Your task to perform on an android device: turn pop-ups on in chrome Image 0: 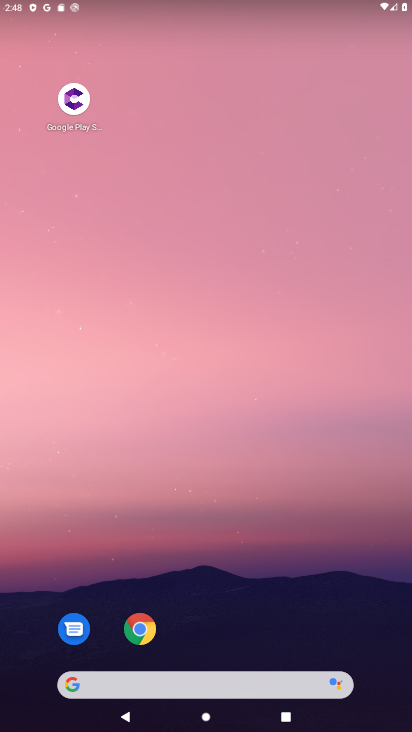
Step 0: drag from (317, 641) to (274, 141)
Your task to perform on an android device: turn pop-ups on in chrome Image 1: 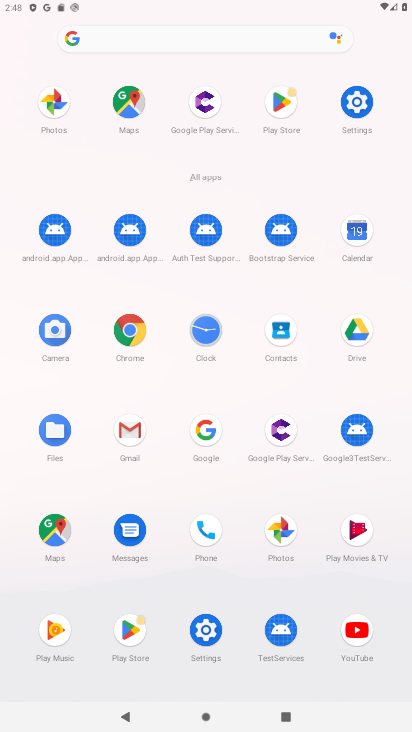
Step 1: click (134, 331)
Your task to perform on an android device: turn pop-ups on in chrome Image 2: 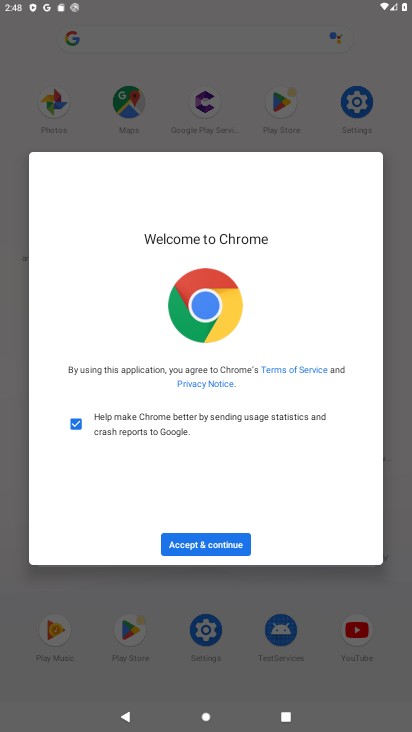
Step 2: click (222, 545)
Your task to perform on an android device: turn pop-ups on in chrome Image 3: 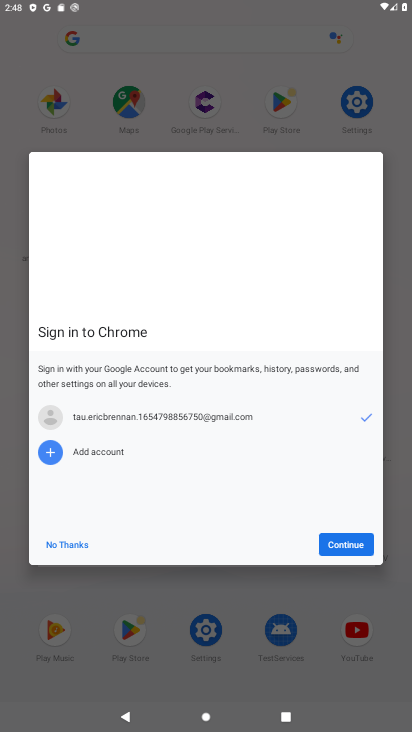
Step 3: click (327, 544)
Your task to perform on an android device: turn pop-ups on in chrome Image 4: 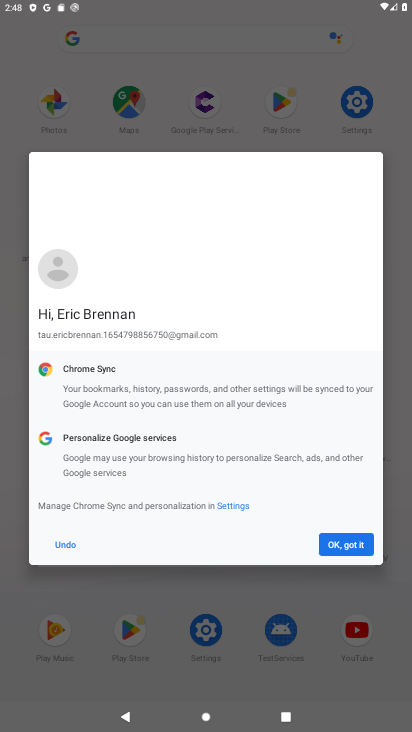
Step 4: click (327, 544)
Your task to perform on an android device: turn pop-ups on in chrome Image 5: 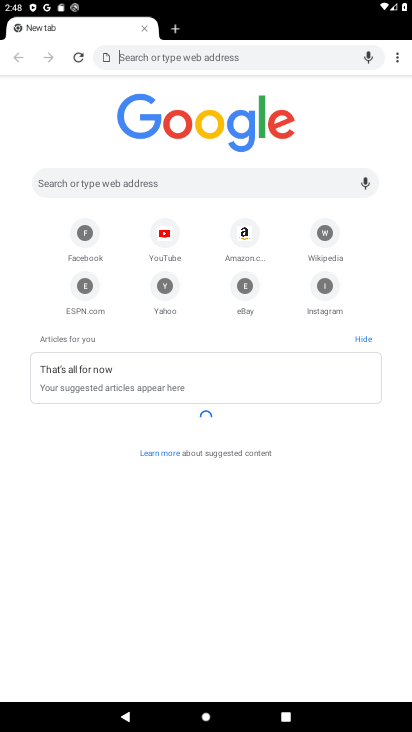
Step 5: click (401, 51)
Your task to perform on an android device: turn pop-ups on in chrome Image 6: 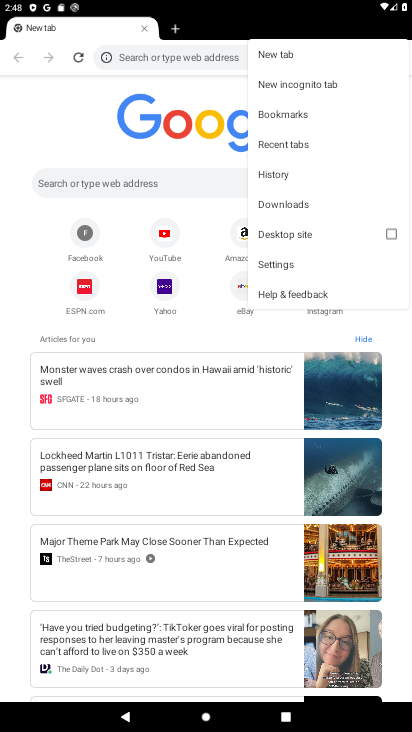
Step 6: click (303, 259)
Your task to perform on an android device: turn pop-ups on in chrome Image 7: 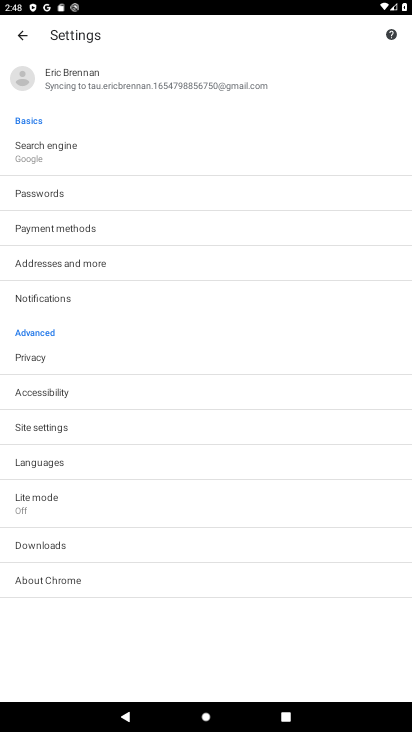
Step 7: click (212, 429)
Your task to perform on an android device: turn pop-ups on in chrome Image 8: 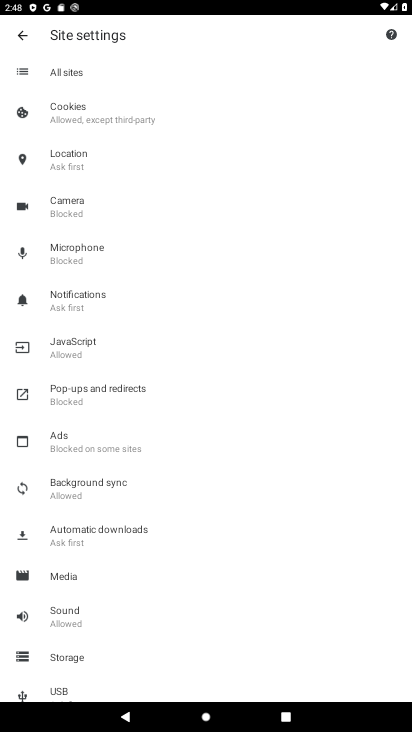
Step 8: click (166, 389)
Your task to perform on an android device: turn pop-ups on in chrome Image 9: 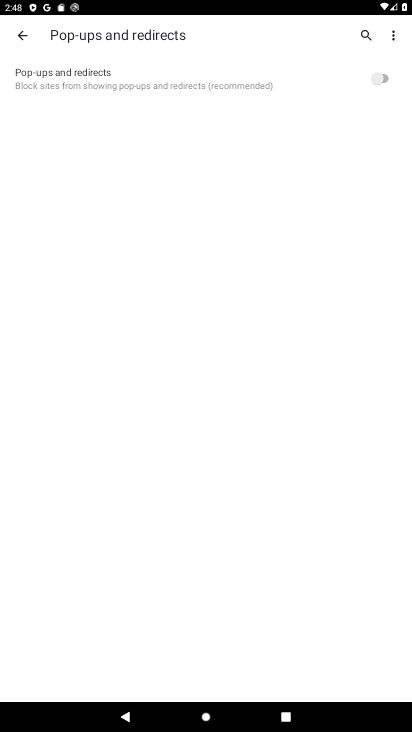
Step 9: click (376, 85)
Your task to perform on an android device: turn pop-ups on in chrome Image 10: 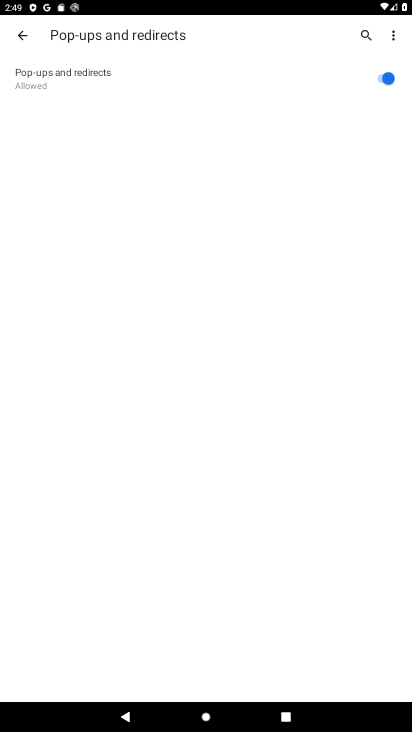
Step 10: task complete